Your task to perform on an android device: Go to location settings Image 0: 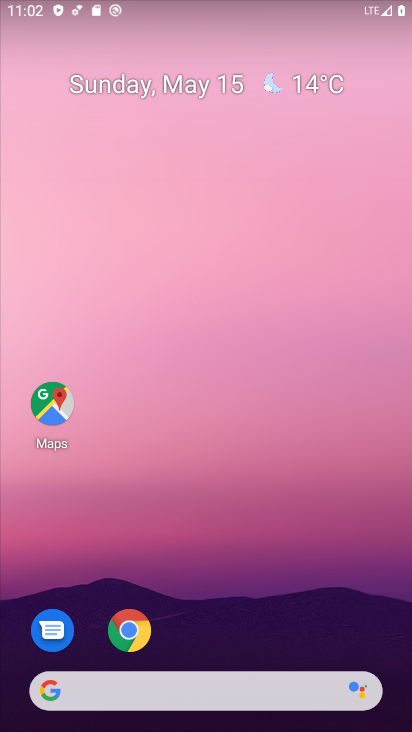
Step 0: drag from (137, 720) to (254, 109)
Your task to perform on an android device: Go to location settings Image 1: 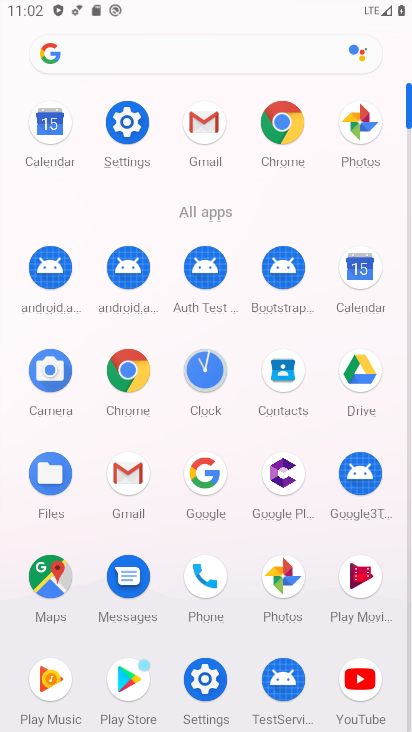
Step 1: click (125, 122)
Your task to perform on an android device: Go to location settings Image 2: 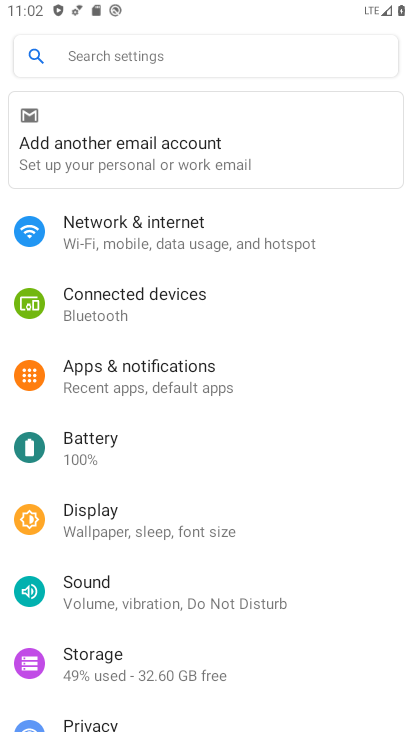
Step 2: drag from (5, 693) to (209, 172)
Your task to perform on an android device: Go to location settings Image 3: 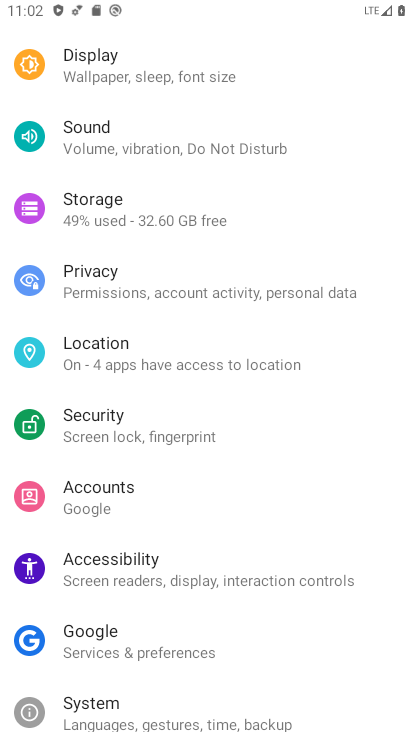
Step 3: click (112, 368)
Your task to perform on an android device: Go to location settings Image 4: 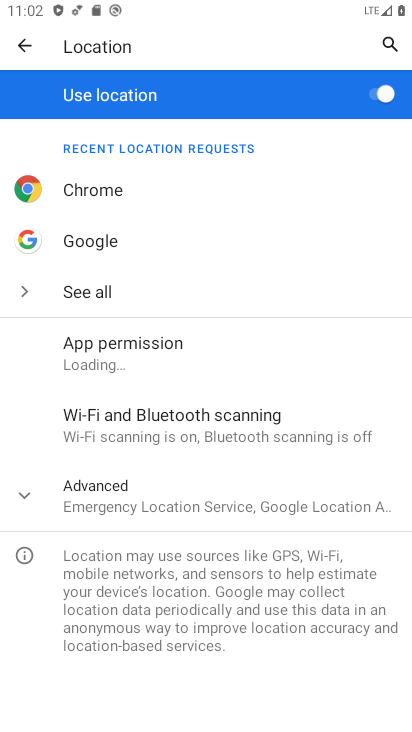
Step 4: click (381, 100)
Your task to perform on an android device: Go to location settings Image 5: 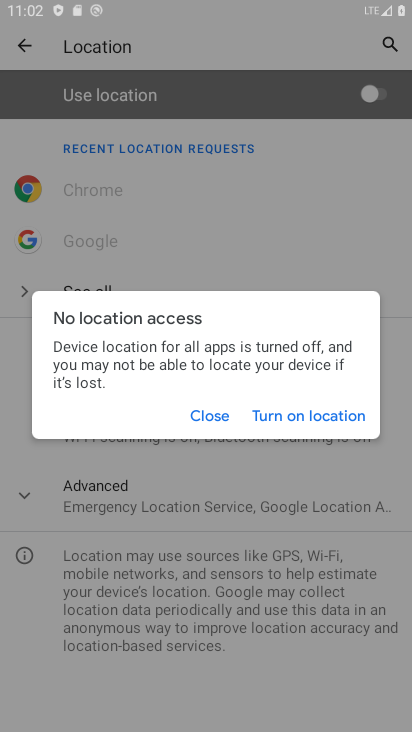
Step 5: task complete